Your task to perform on an android device: What's on my calendar tomorrow? Image 0: 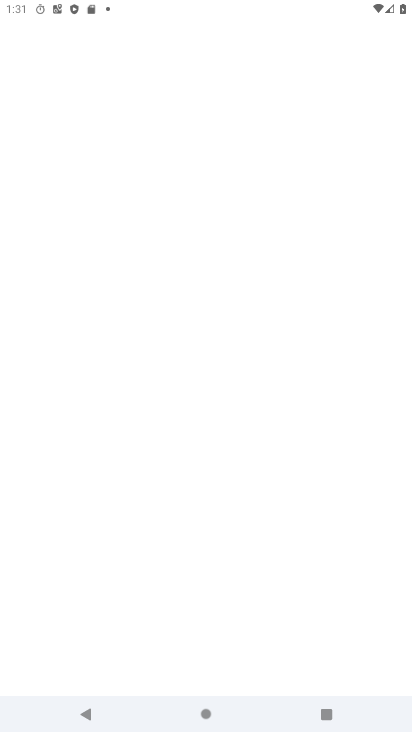
Step 0: drag from (247, 695) to (270, 303)
Your task to perform on an android device: What's on my calendar tomorrow? Image 1: 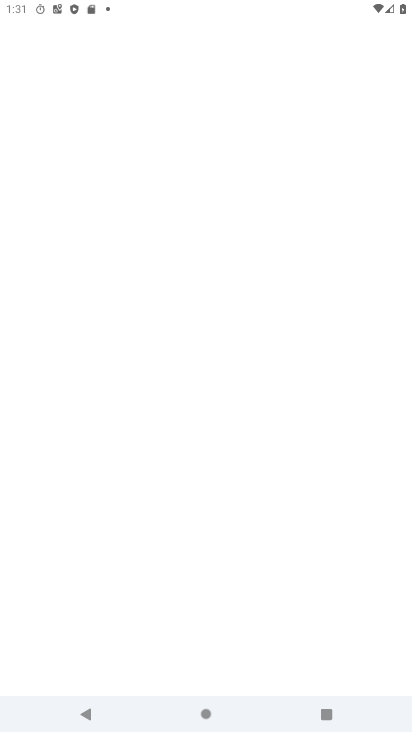
Step 1: press home button
Your task to perform on an android device: What's on my calendar tomorrow? Image 2: 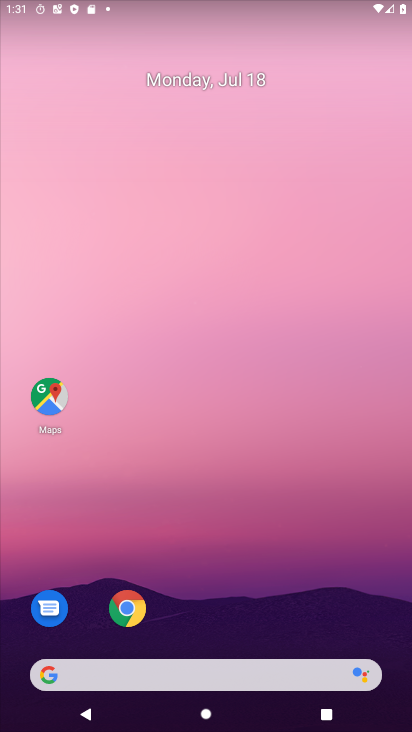
Step 2: drag from (231, 722) to (231, 157)
Your task to perform on an android device: What's on my calendar tomorrow? Image 3: 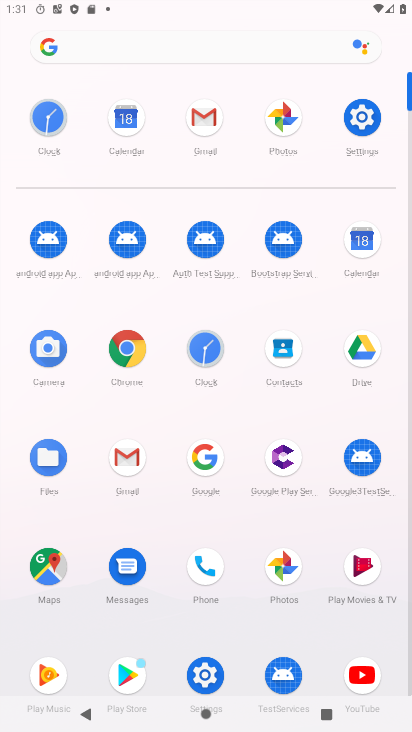
Step 3: click (362, 240)
Your task to perform on an android device: What's on my calendar tomorrow? Image 4: 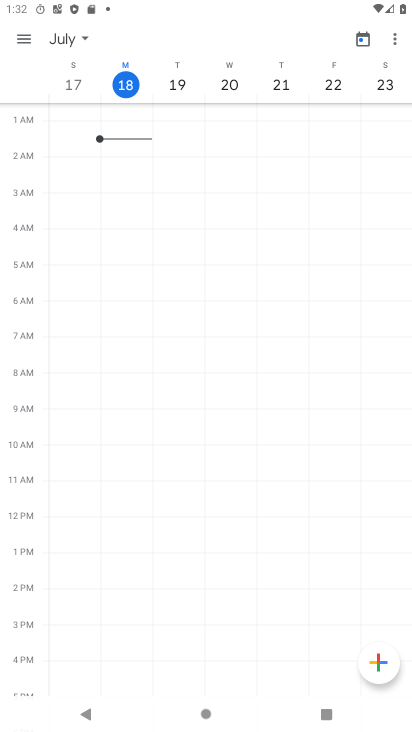
Step 4: click (173, 78)
Your task to perform on an android device: What's on my calendar tomorrow? Image 5: 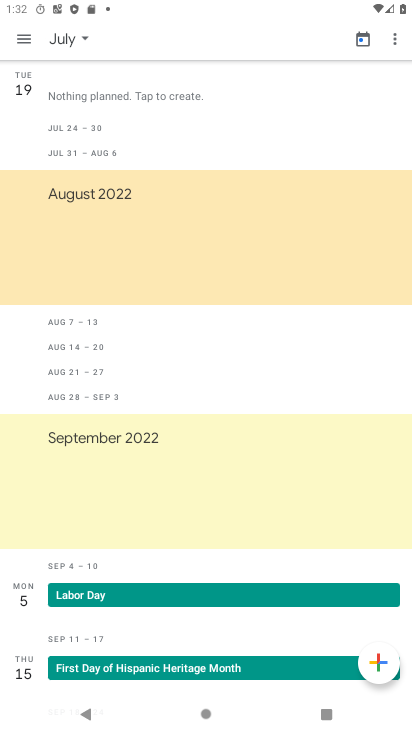
Step 5: task complete